Your task to perform on an android device: change your default location settings in chrome Image 0: 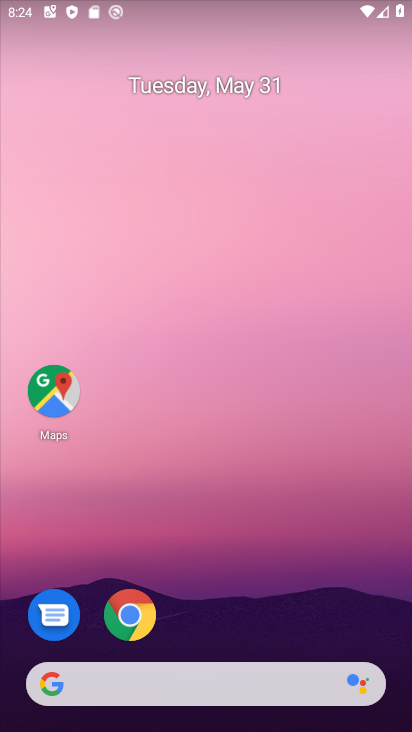
Step 0: click (125, 609)
Your task to perform on an android device: change your default location settings in chrome Image 1: 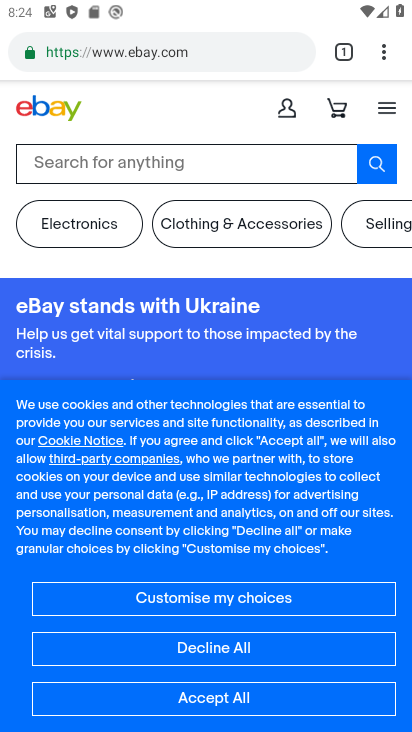
Step 1: click (381, 54)
Your task to perform on an android device: change your default location settings in chrome Image 2: 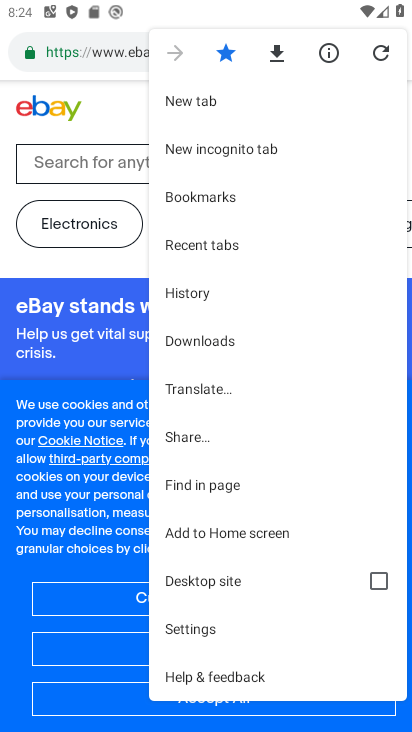
Step 2: click (215, 612)
Your task to perform on an android device: change your default location settings in chrome Image 3: 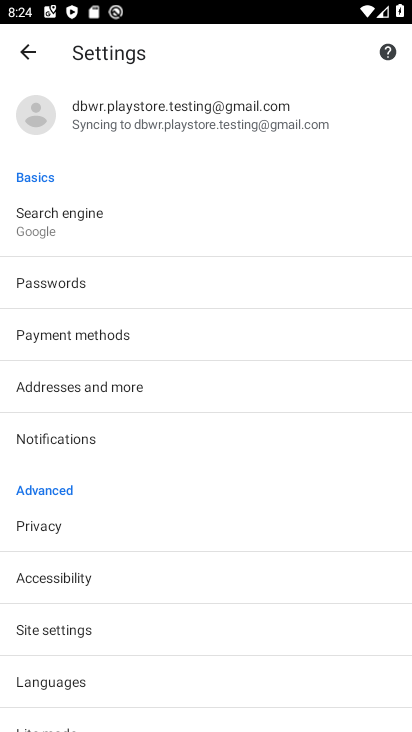
Step 3: drag from (205, 705) to (198, 457)
Your task to perform on an android device: change your default location settings in chrome Image 4: 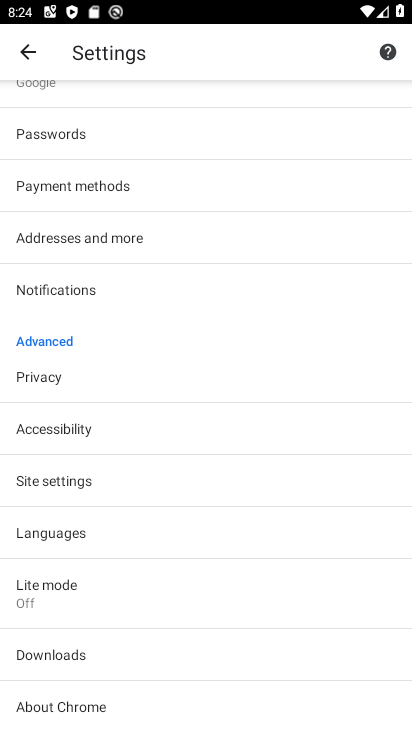
Step 4: click (53, 469)
Your task to perform on an android device: change your default location settings in chrome Image 5: 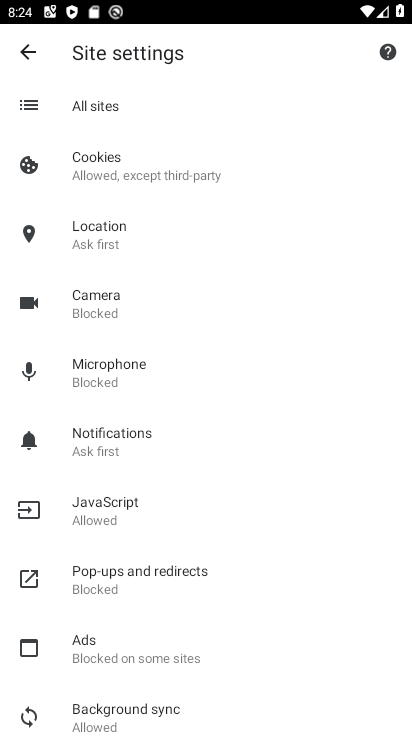
Step 5: click (97, 240)
Your task to perform on an android device: change your default location settings in chrome Image 6: 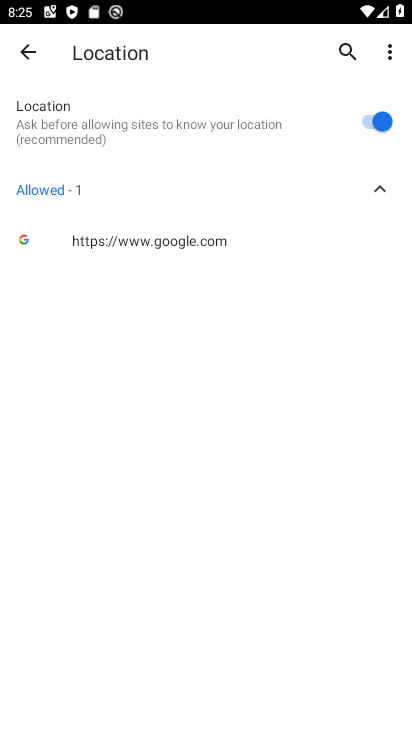
Step 6: click (369, 120)
Your task to perform on an android device: change your default location settings in chrome Image 7: 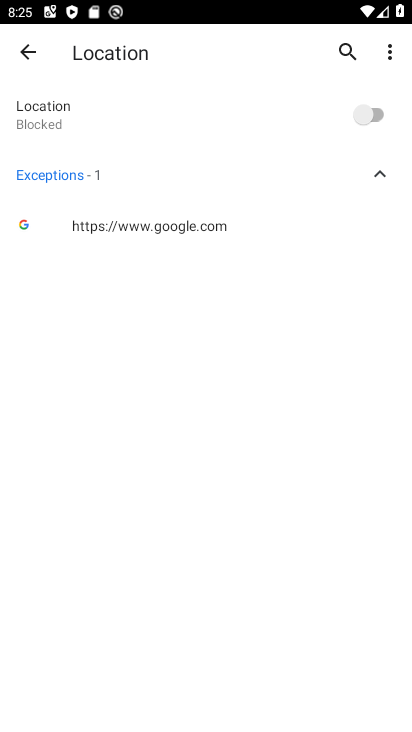
Step 7: task complete